Your task to perform on an android device: turn off priority inbox in the gmail app Image 0: 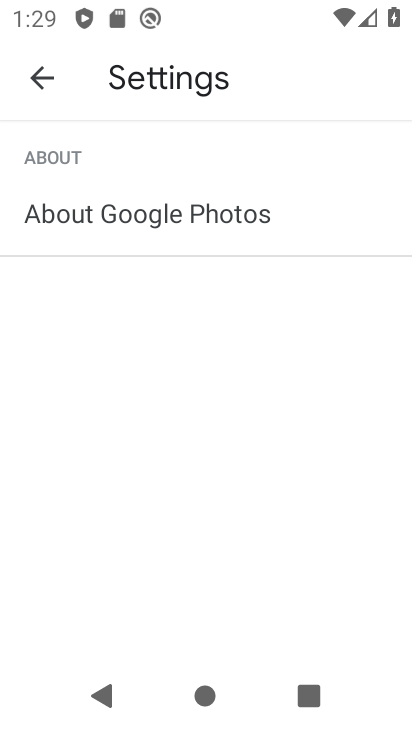
Step 0: press home button
Your task to perform on an android device: turn off priority inbox in the gmail app Image 1: 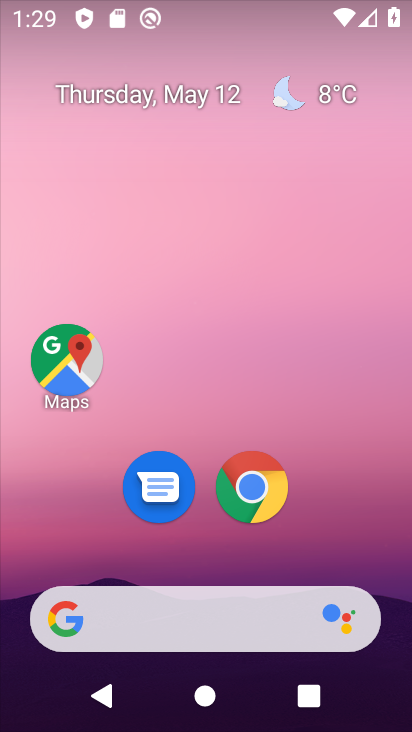
Step 1: drag from (273, 546) to (269, 1)
Your task to perform on an android device: turn off priority inbox in the gmail app Image 2: 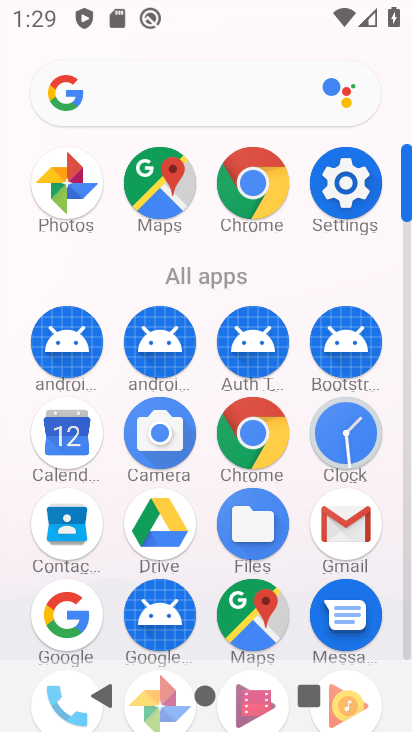
Step 2: click (347, 507)
Your task to perform on an android device: turn off priority inbox in the gmail app Image 3: 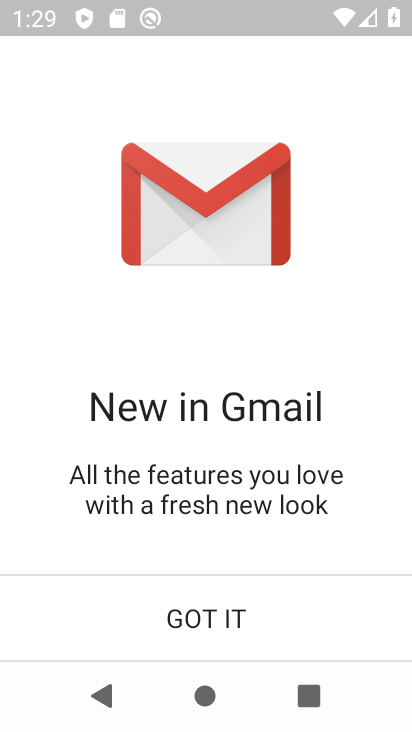
Step 3: click (217, 623)
Your task to perform on an android device: turn off priority inbox in the gmail app Image 4: 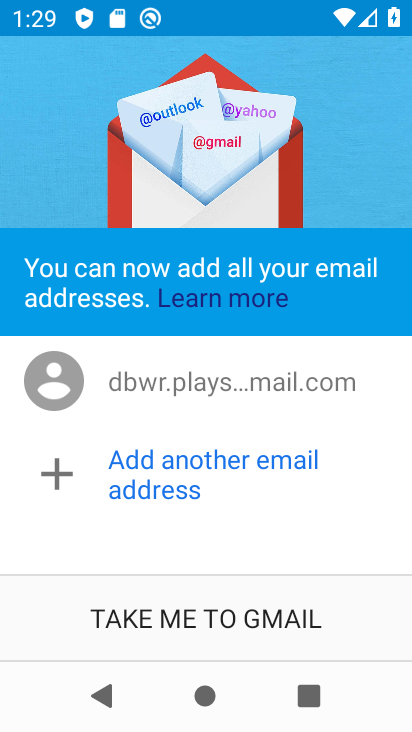
Step 4: click (233, 611)
Your task to perform on an android device: turn off priority inbox in the gmail app Image 5: 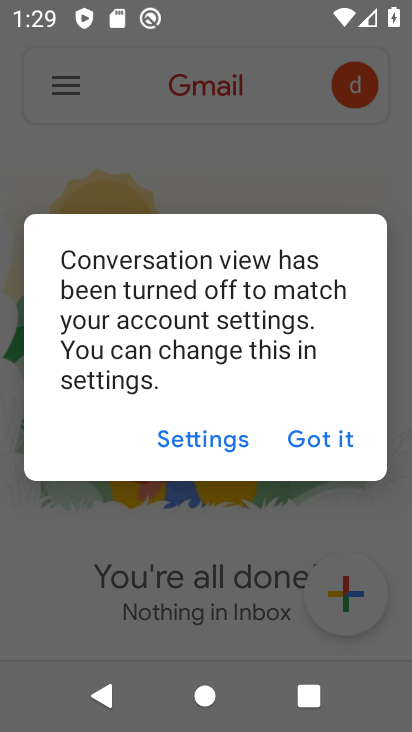
Step 5: click (325, 442)
Your task to perform on an android device: turn off priority inbox in the gmail app Image 6: 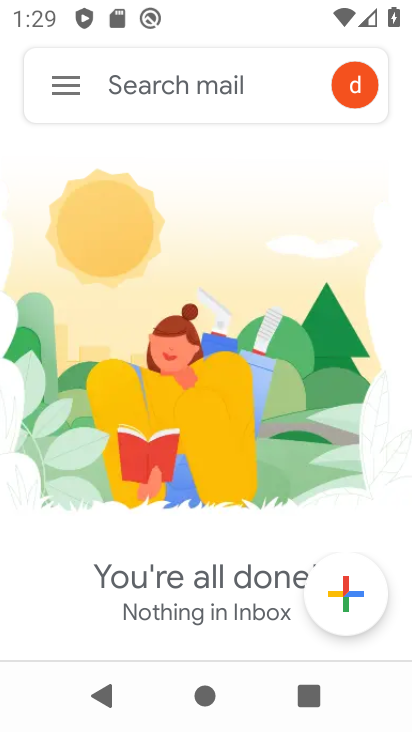
Step 6: click (60, 102)
Your task to perform on an android device: turn off priority inbox in the gmail app Image 7: 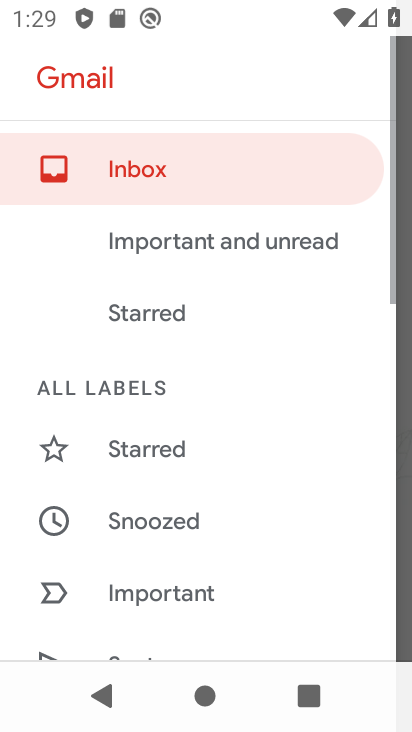
Step 7: drag from (242, 636) to (254, 148)
Your task to perform on an android device: turn off priority inbox in the gmail app Image 8: 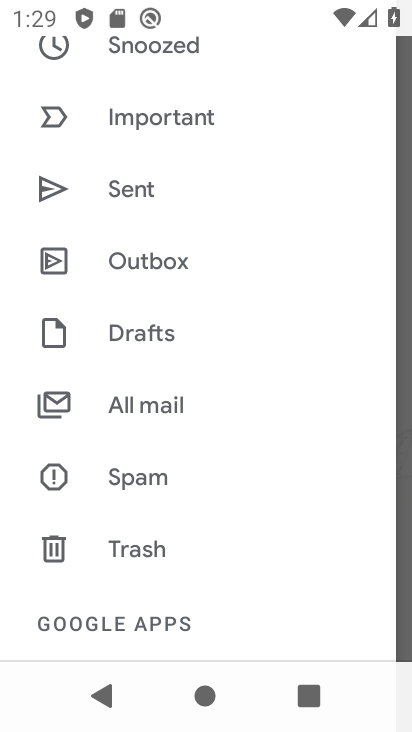
Step 8: drag from (82, 617) to (221, 167)
Your task to perform on an android device: turn off priority inbox in the gmail app Image 9: 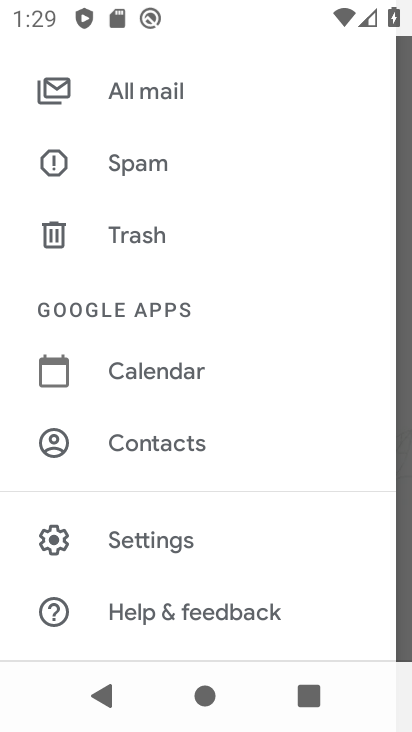
Step 9: click (106, 539)
Your task to perform on an android device: turn off priority inbox in the gmail app Image 10: 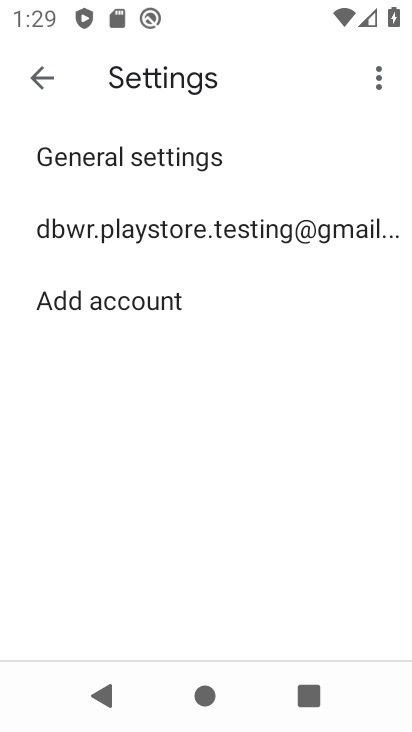
Step 10: click (306, 227)
Your task to perform on an android device: turn off priority inbox in the gmail app Image 11: 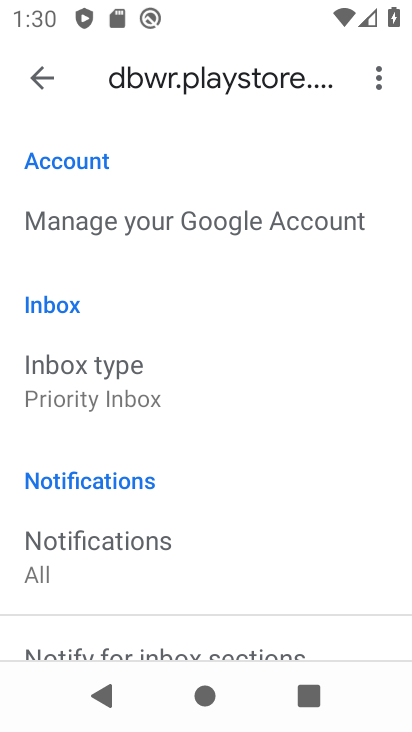
Step 11: click (134, 372)
Your task to perform on an android device: turn off priority inbox in the gmail app Image 12: 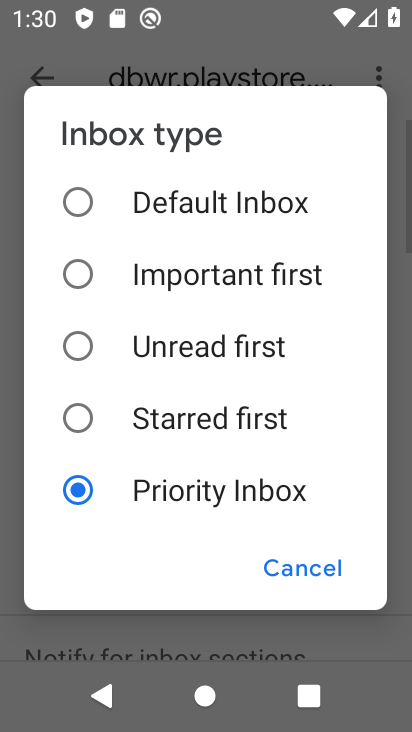
Step 12: click (278, 205)
Your task to perform on an android device: turn off priority inbox in the gmail app Image 13: 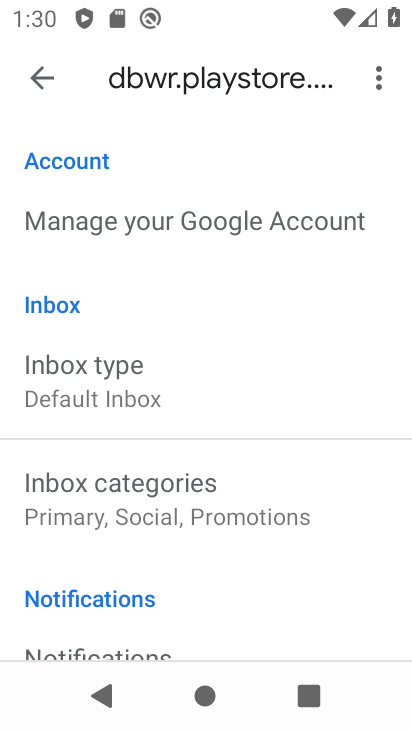
Step 13: task complete